Your task to perform on an android device: Turn on the flashlight Image 0: 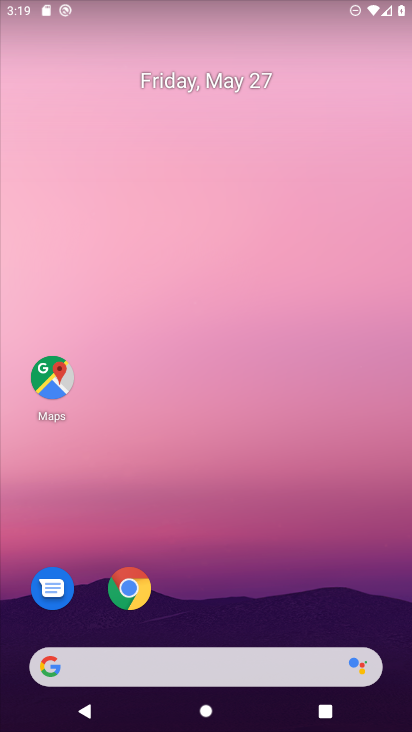
Step 0: click (129, 582)
Your task to perform on an android device: Turn on the flashlight Image 1: 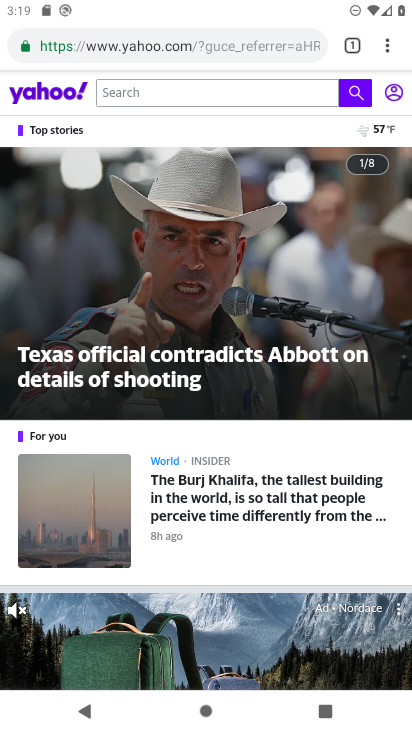
Step 1: drag from (356, 6) to (317, 472)
Your task to perform on an android device: Turn on the flashlight Image 2: 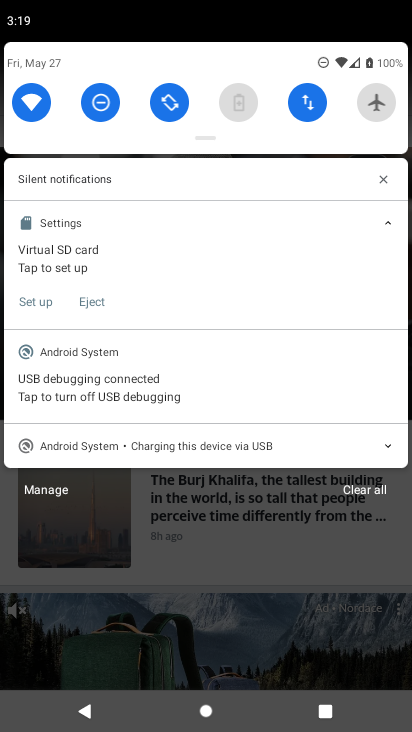
Step 2: drag from (237, 135) to (334, 401)
Your task to perform on an android device: Turn on the flashlight Image 3: 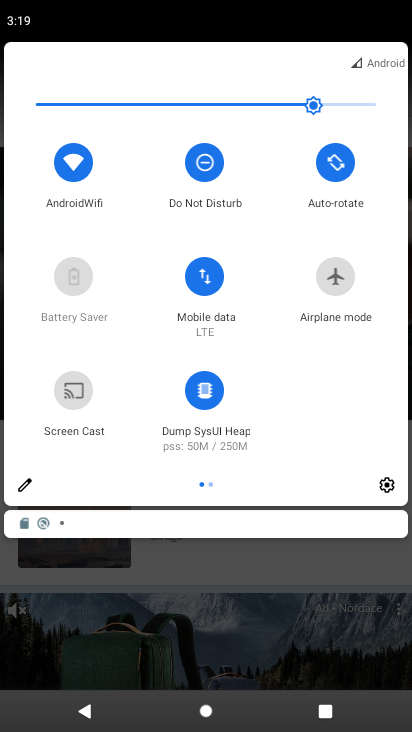
Step 3: click (24, 482)
Your task to perform on an android device: Turn on the flashlight Image 4: 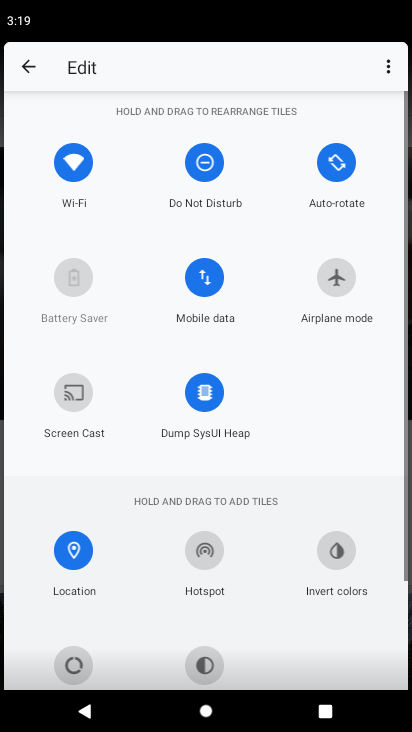
Step 4: task complete